Your task to perform on an android device: turn off wifi Image 0: 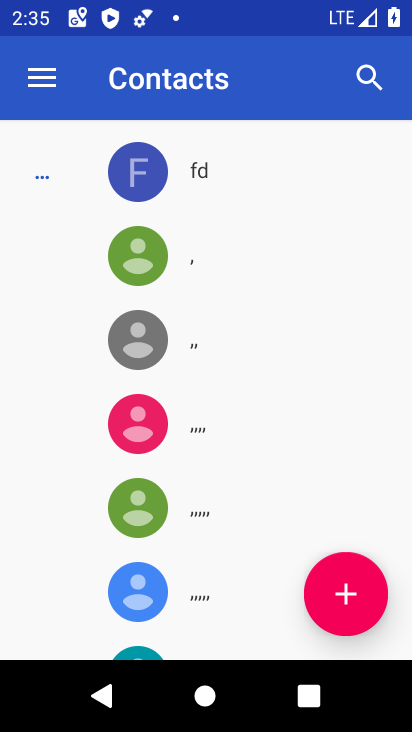
Step 0: press home button
Your task to perform on an android device: turn off wifi Image 1: 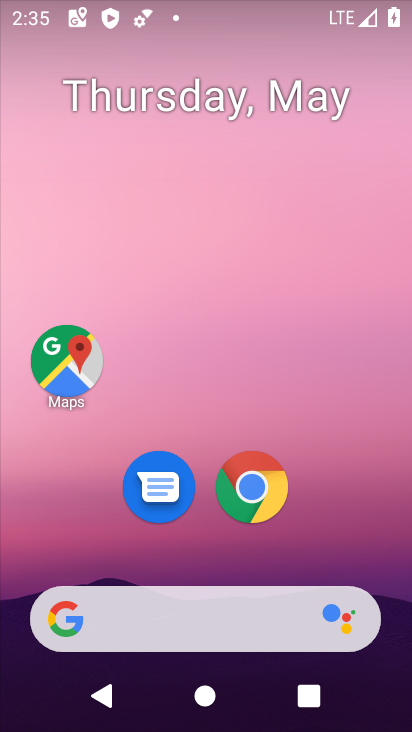
Step 1: drag from (197, 580) to (260, 24)
Your task to perform on an android device: turn off wifi Image 2: 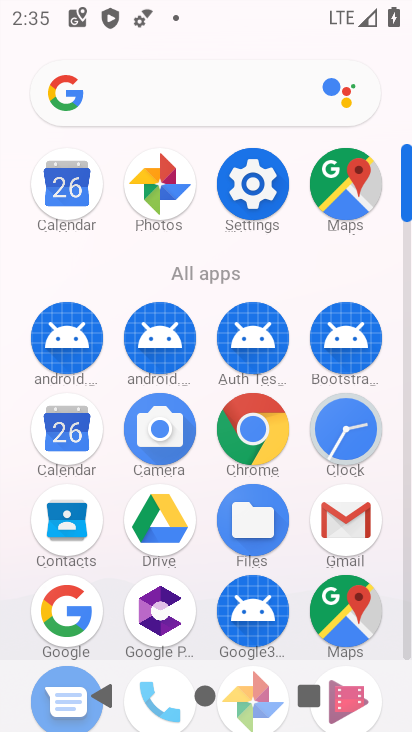
Step 2: click (257, 196)
Your task to perform on an android device: turn off wifi Image 3: 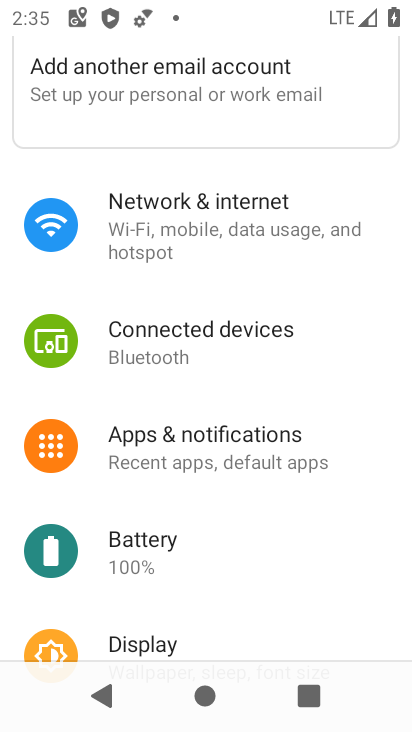
Step 3: click (253, 219)
Your task to perform on an android device: turn off wifi Image 4: 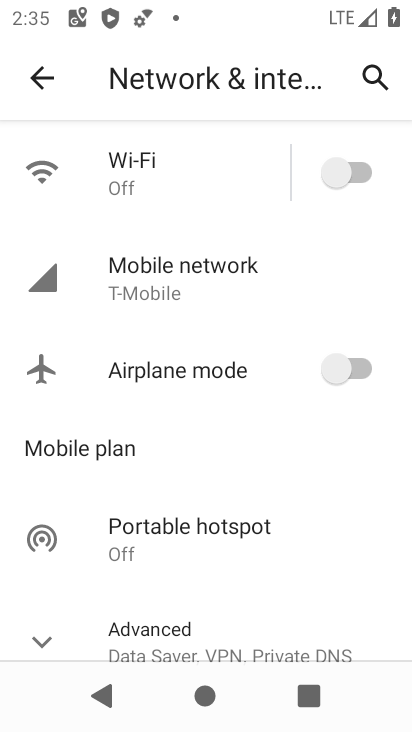
Step 4: task complete